Your task to perform on an android device: What is the news today? Image 0: 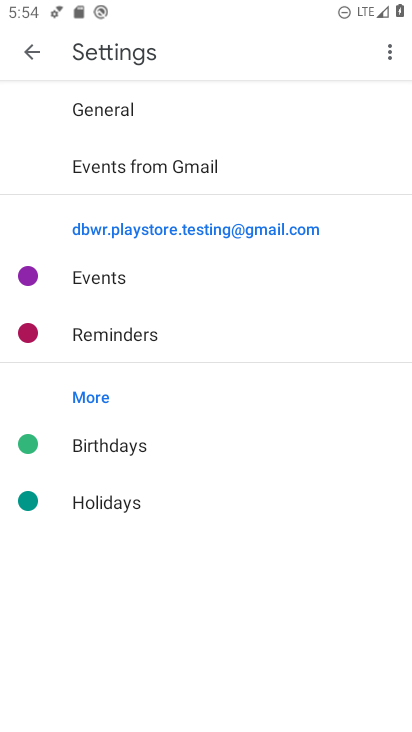
Step 0: press home button
Your task to perform on an android device: What is the news today? Image 1: 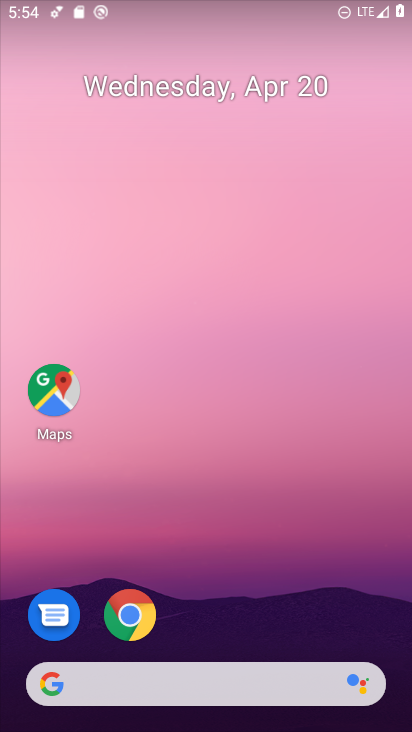
Step 1: click (180, 676)
Your task to perform on an android device: What is the news today? Image 2: 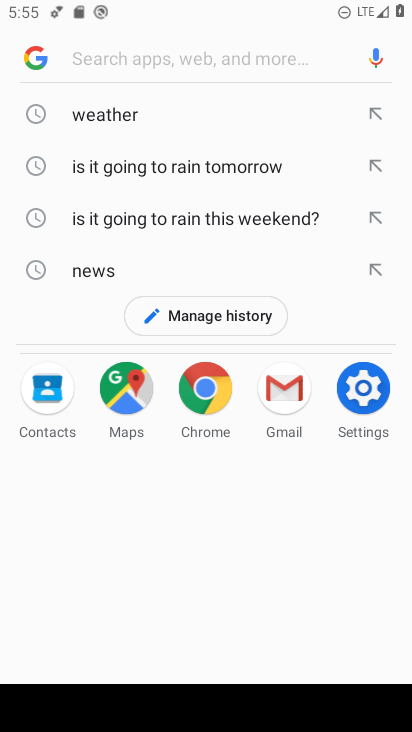
Step 2: type "What is the news today?"
Your task to perform on an android device: What is the news today? Image 3: 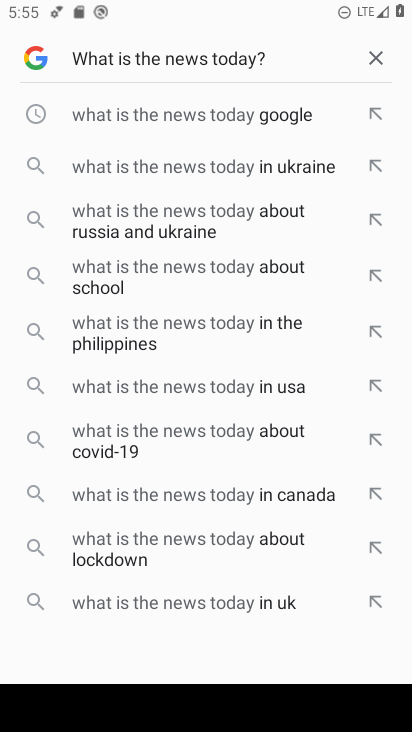
Step 3: click (241, 114)
Your task to perform on an android device: What is the news today? Image 4: 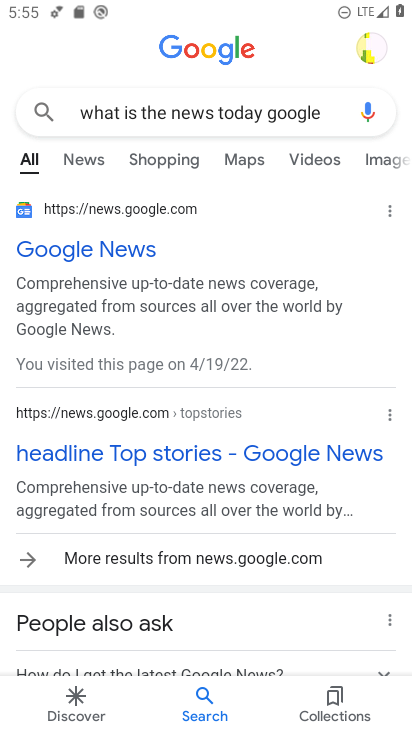
Step 4: click (127, 245)
Your task to perform on an android device: What is the news today? Image 5: 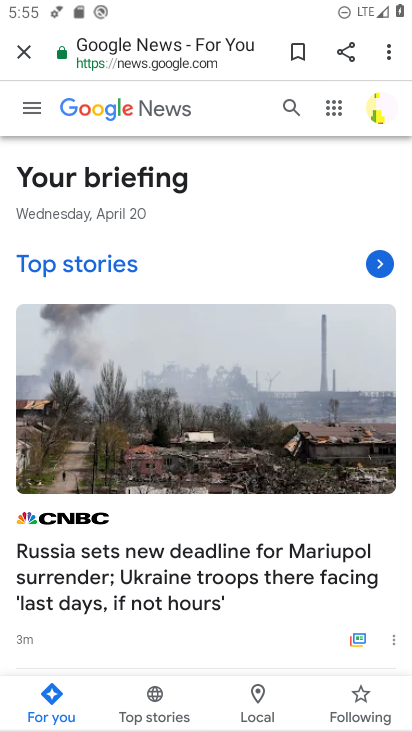
Step 5: task complete